Your task to perform on an android device: Go to Reddit.com Image 0: 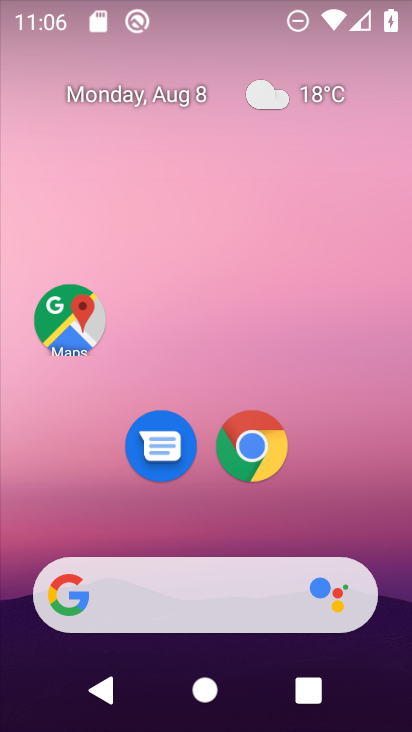
Step 0: click (253, 449)
Your task to perform on an android device: Go to Reddit.com Image 1: 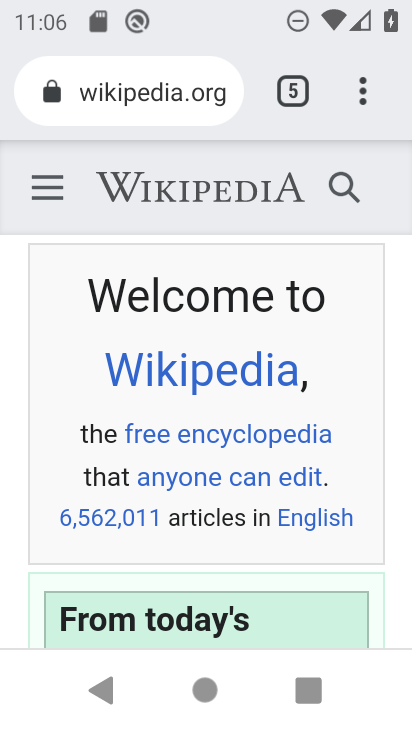
Step 1: click (219, 73)
Your task to perform on an android device: Go to Reddit.com Image 2: 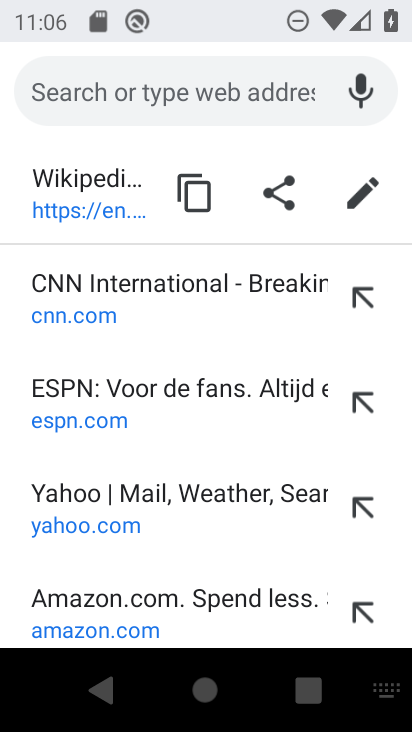
Step 2: type "reddit.com"
Your task to perform on an android device: Go to Reddit.com Image 3: 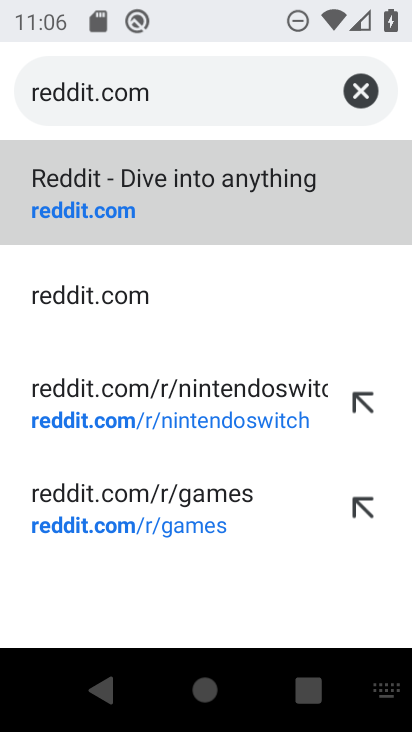
Step 3: click (99, 172)
Your task to perform on an android device: Go to Reddit.com Image 4: 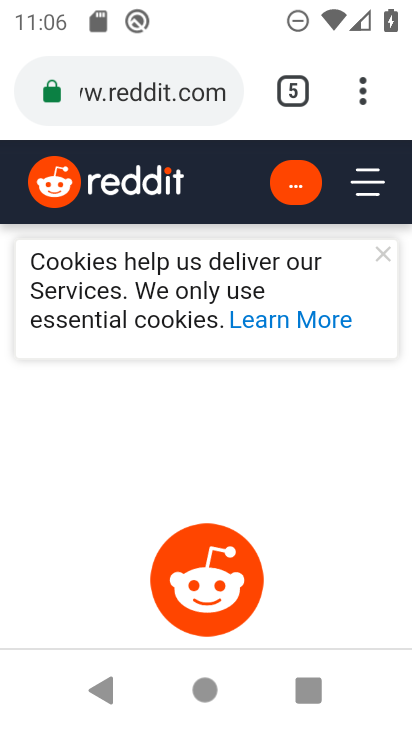
Step 4: task complete